Your task to perform on an android device: find snoozed emails in the gmail app Image 0: 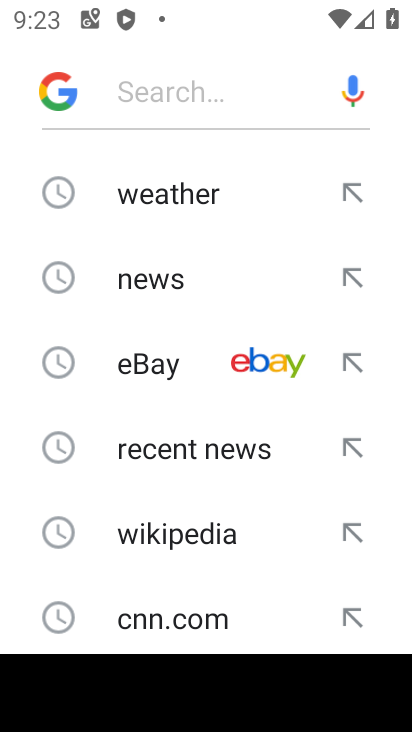
Step 0: press home button
Your task to perform on an android device: find snoozed emails in the gmail app Image 1: 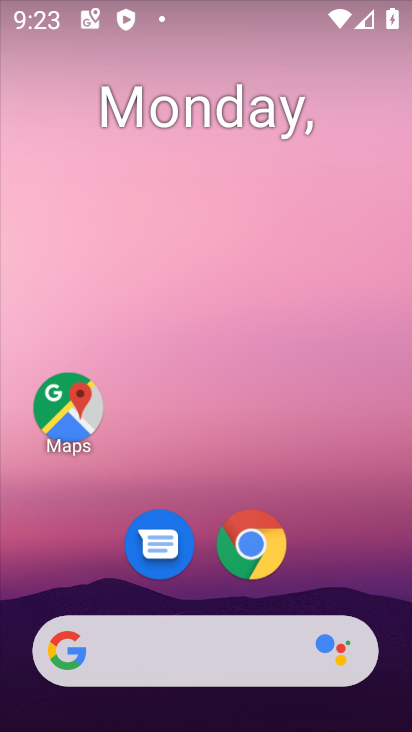
Step 1: drag from (215, 434) to (249, 3)
Your task to perform on an android device: find snoozed emails in the gmail app Image 2: 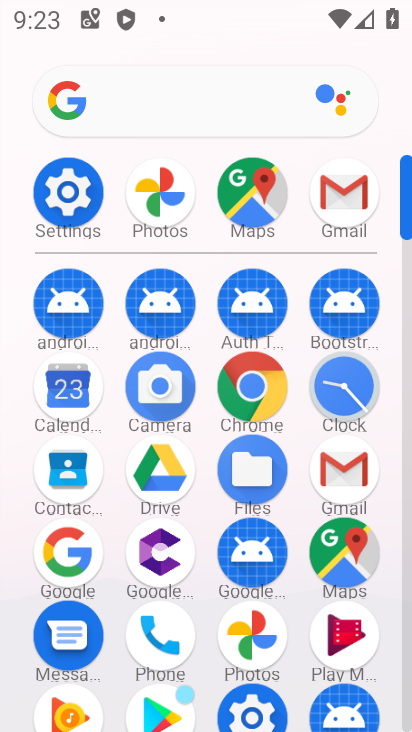
Step 2: click (341, 197)
Your task to perform on an android device: find snoozed emails in the gmail app Image 3: 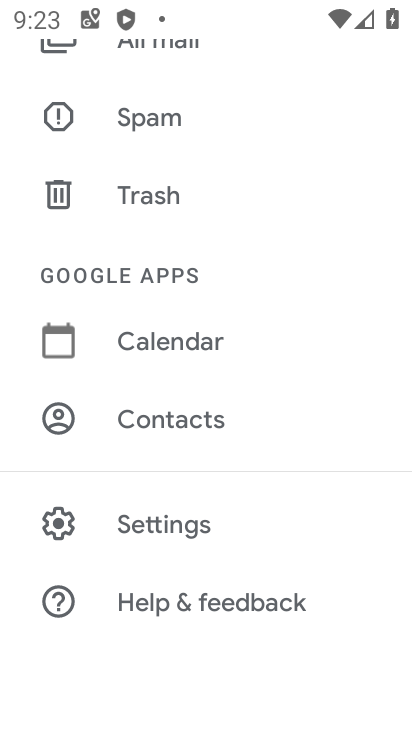
Step 3: drag from (226, 239) to (273, 689)
Your task to perform on an android device: find snoozed emails in the gmail app Image 4: 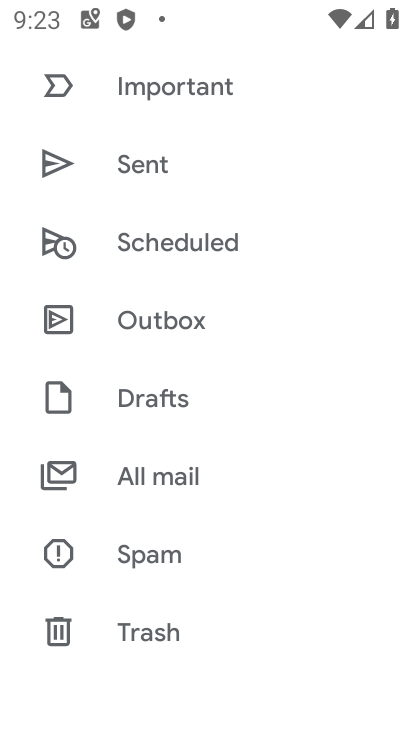
Step 4: drag from (274, 159) to (367, 724)
Your task to perform on an android device: find snoozed emails in the gmail app Image 5: 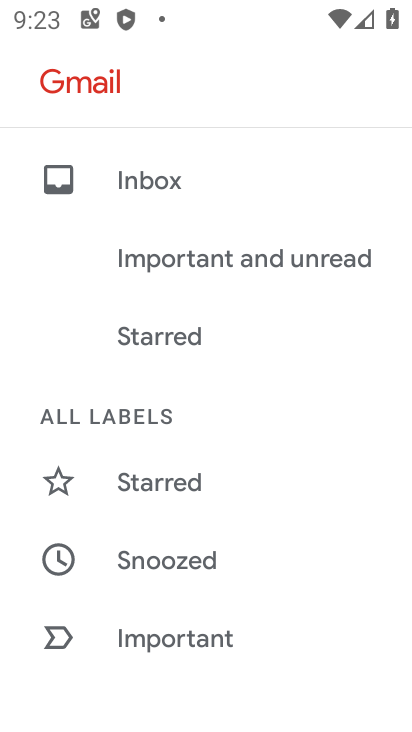
Step 5: click (155, 549)
Your task to perform on an android device: find snoozed emails in the gmail app Image 6: 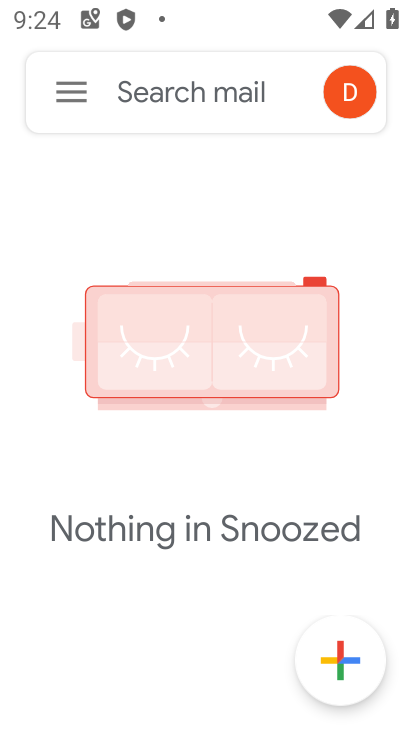
Step 6: task complete